Your task to perform on an android device: add a contact in the contacts app Image 0: 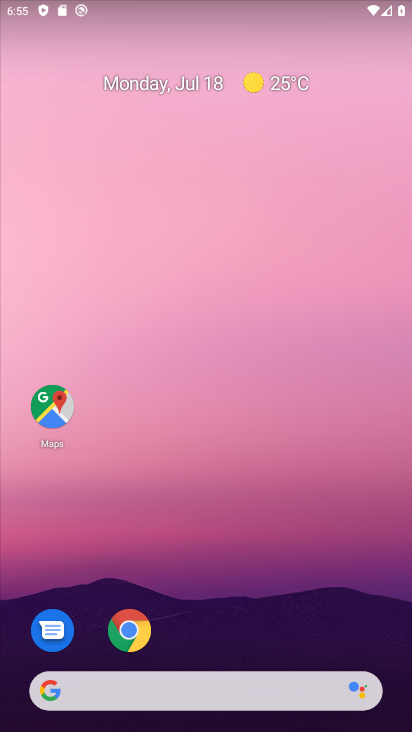
Step 0: drag from (240, 701) to (338, 222)
Your task to perform on an android device: add a contact in the contacts app Image 1: 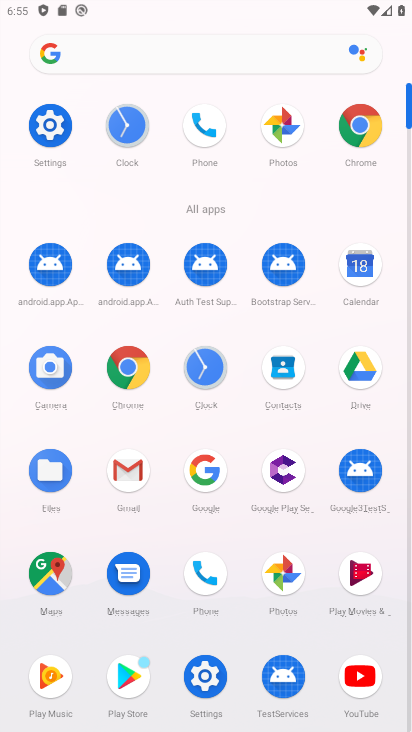
Step 1: click (200, 137)
Your task to perform on an android device: add a contact in the contacts app Image 2: 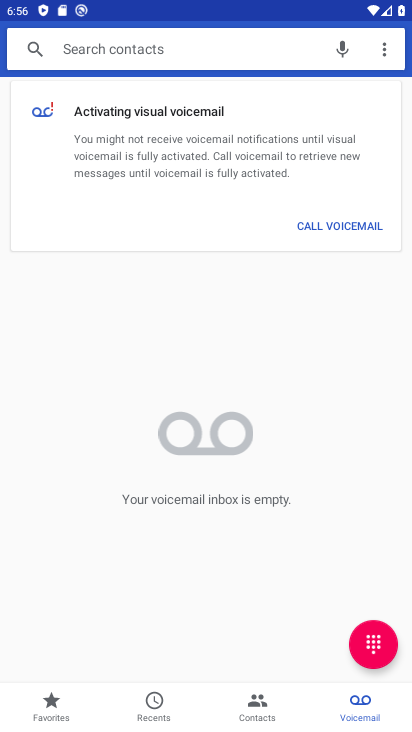
Step 2: click (255, 703)
Your task to perform on an android device: add a contact in the contacts app Image 3: 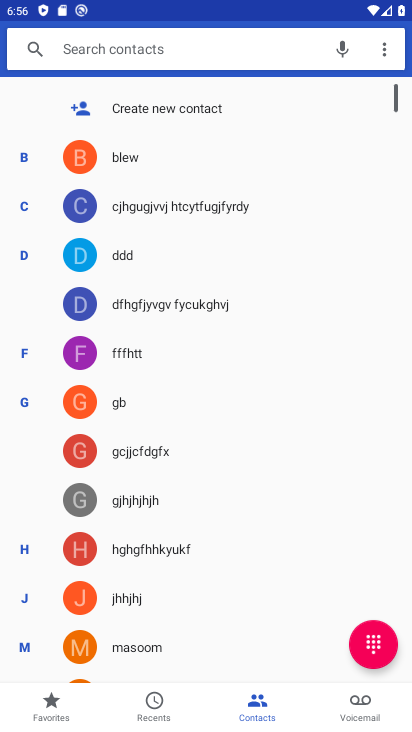
Step 3: click (163, 99)
Your task to perform on an android device: add a contact in the contacts app Image 4: 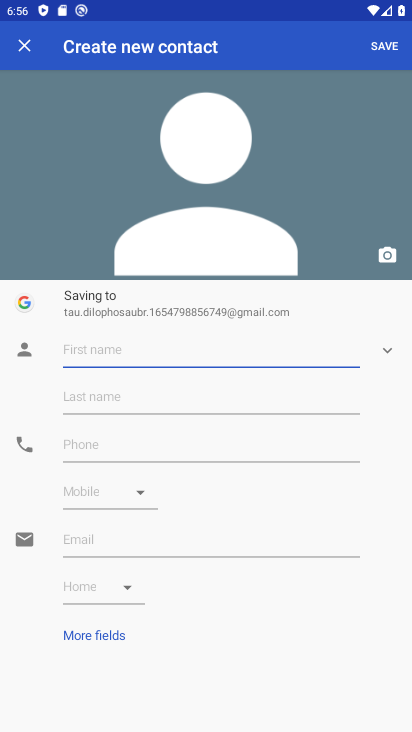
Step 4: click (108, 356)
Your task to perform on an android device: add a contact in the contacts app Image 5: 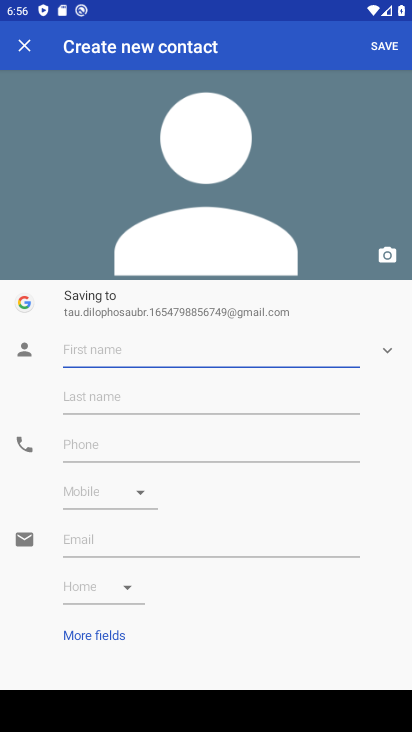
Step 5: drag from (381, 717) to (370, 654)
Your task to perform on an android device: add a contact in the contacts app Image 6: 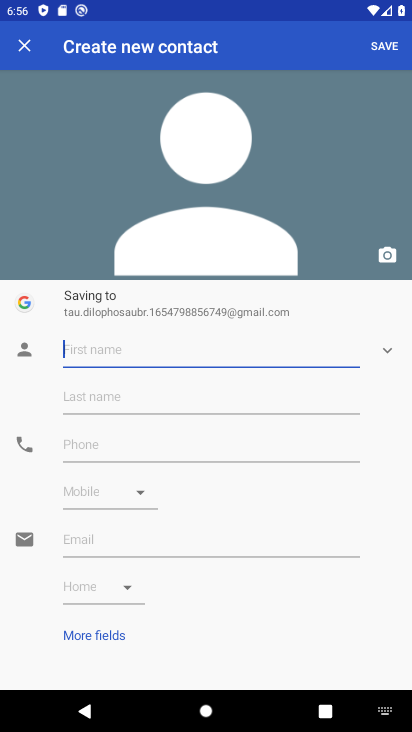
Step 6: click (388, 715)
Your task to perform on an android device: add a contact in the contacts app Image 7: 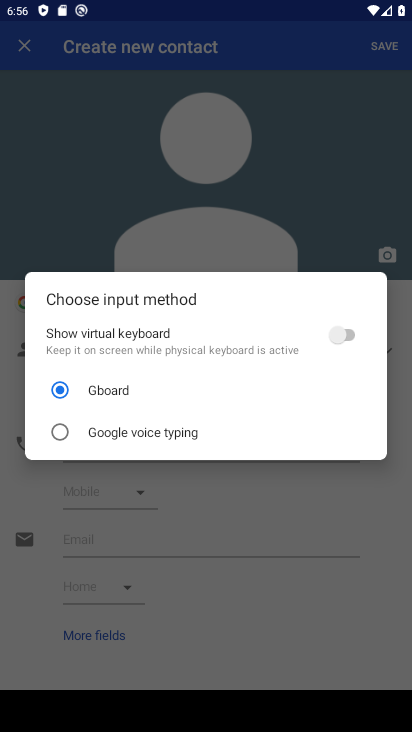
Step 7: click (351, 331)
Your task to perform on an android device: add a contact in the contacts app Image 8: 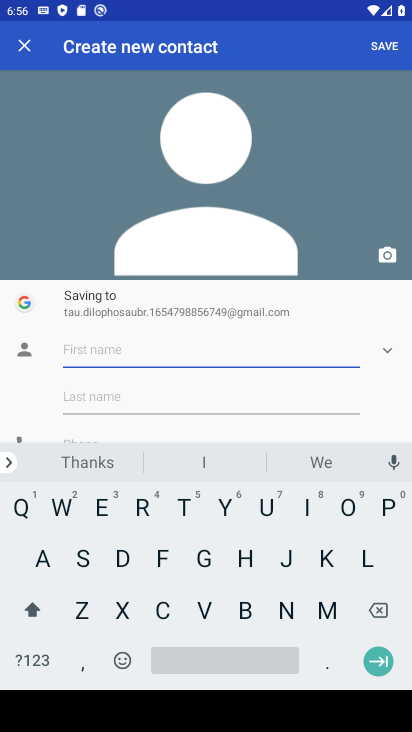
Step 8: click (197, 548)
Your task to perform on an android device: add a contact in the contacts app Image 9: 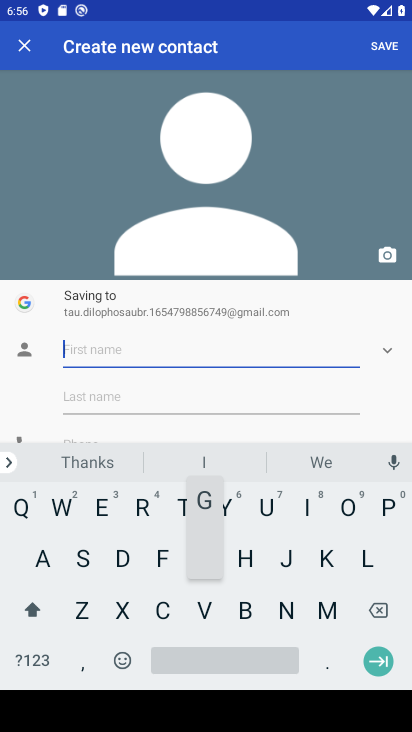
Step 9: click (135, 572)
Your task to perform on an android device: add a contact in the contacts app Image 10: 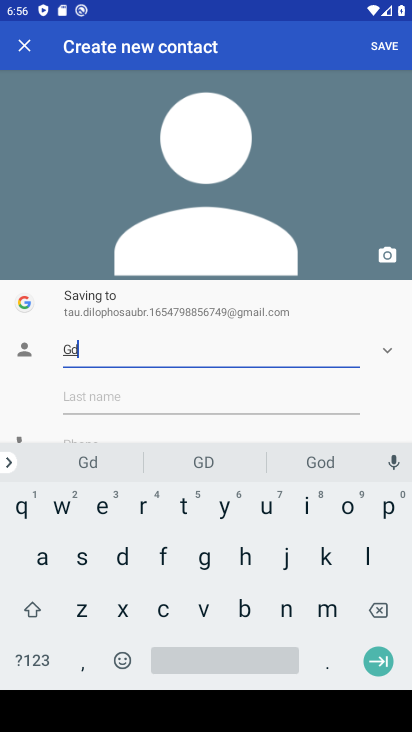
Step 10: click (116, 559)
Your task to perform on an android device: add a contact in the contacts app Image 11: 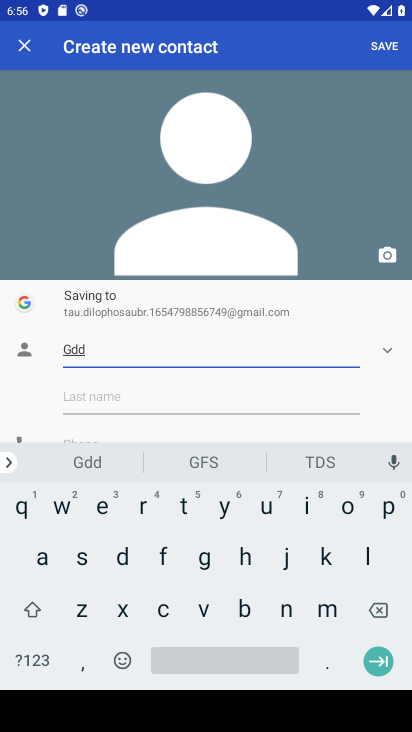
Step 11: click (116, 421)
Your task to perform on an android device: add a contact in the contacts app Image 12: 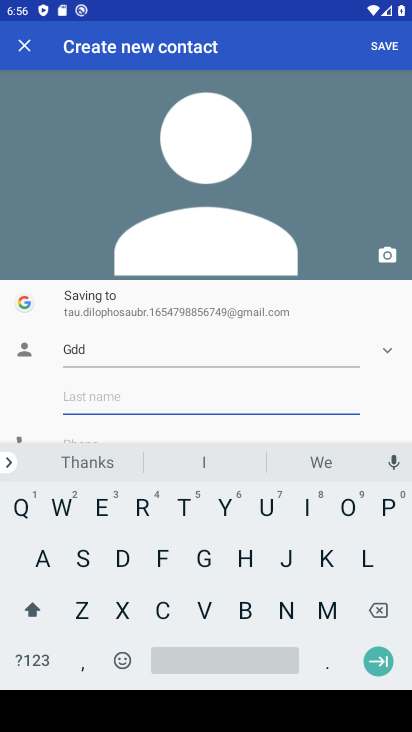
Step 12: click (90, 434)
Your task to perform on an android device: add a contact in the contacts app Image 13: 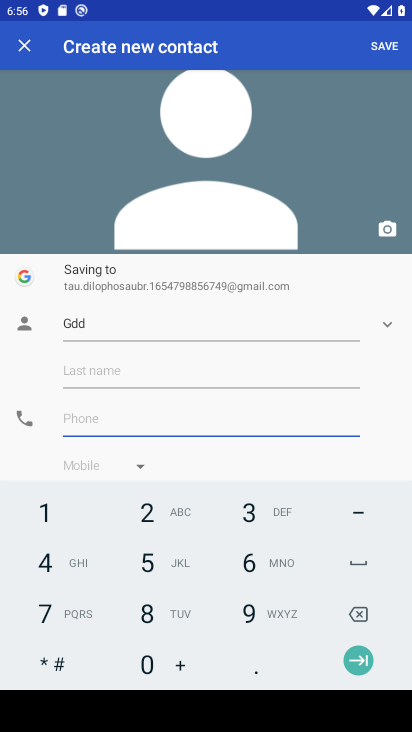
Step 13: click (250, 606)
Your task to perform on an android device: add a contact in the contacts app Image 14: 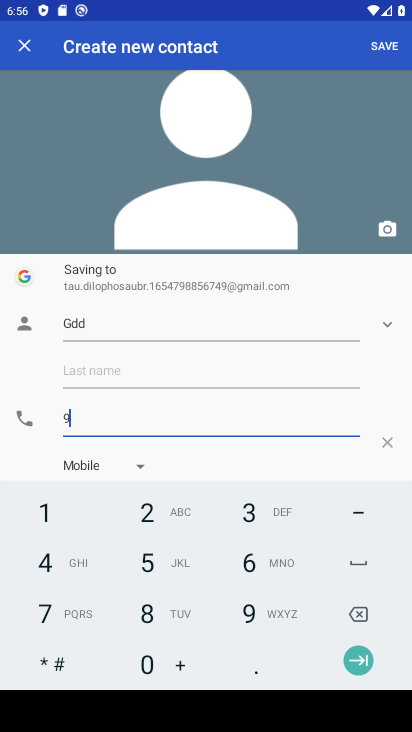
Step 14: click (152, 604)
Your task to perform on an android device: add a contact in the contacts app Image 15: 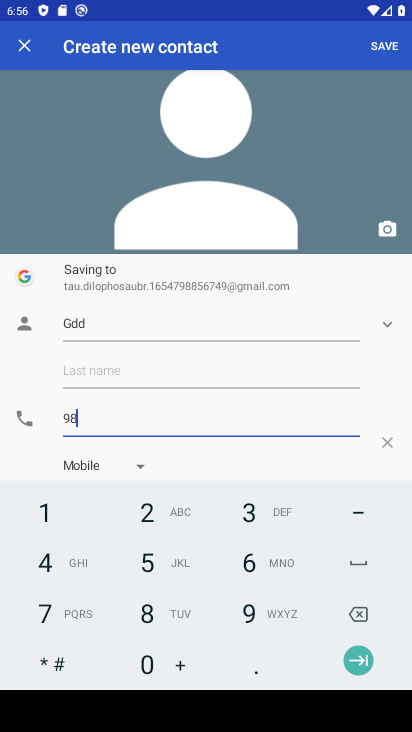
Step 15: click (128, 557)
Your task to perform on an android device: add a contact in the contacts app Image 16: 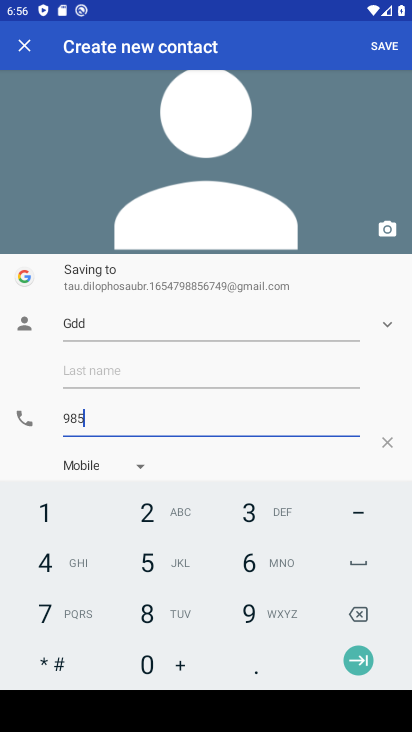
Step 16: click (55, 512)
Your task to perform on an android device: add a contact in the contacts app Image 17: 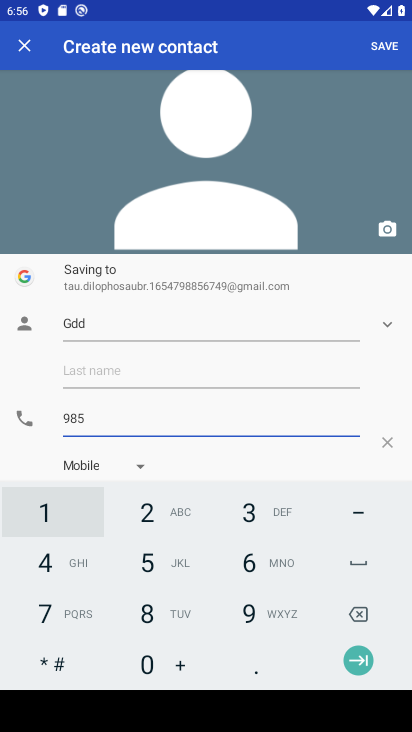
Step 17: click (47, 561)
Your task to perform on an android device: add a contact in the contacts app Image 18: 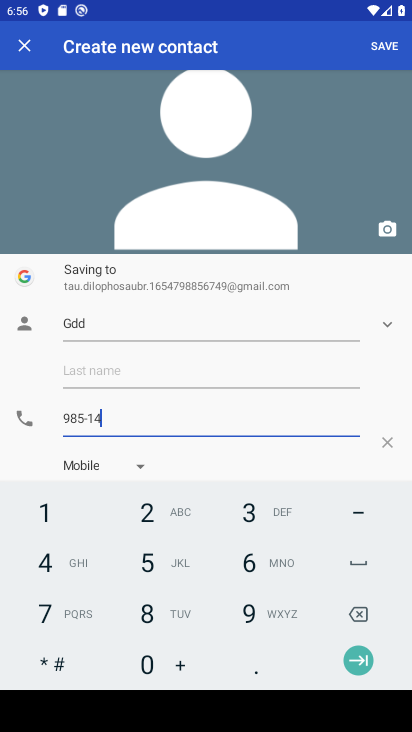
Step 18: click (139, 500)
Your task to perform on an android device: add a contact in the contacts app Image 19: 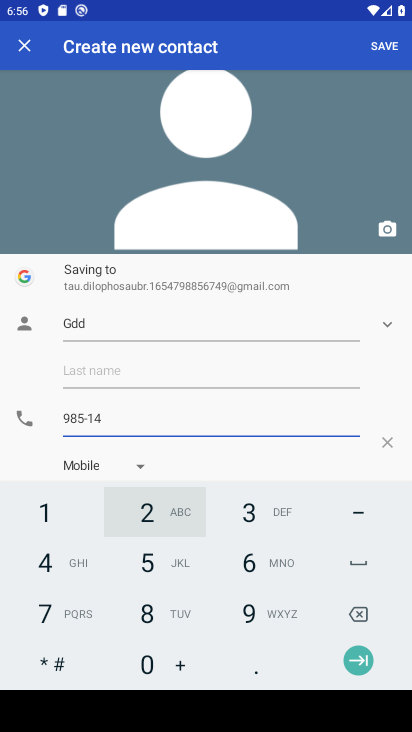
Step 19: click (158, 533)
Your task to perform on an android device: add a contact in the contacts app Image 20: 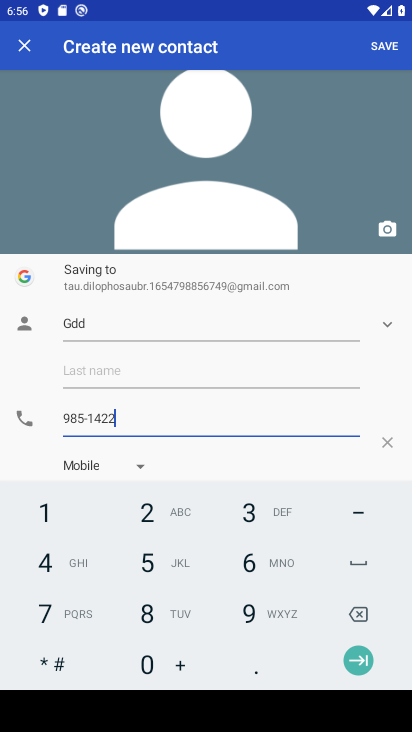
Step 20: click (165, 549)
Your task to perform on an android device: add a contact in the contacts app Image 21: 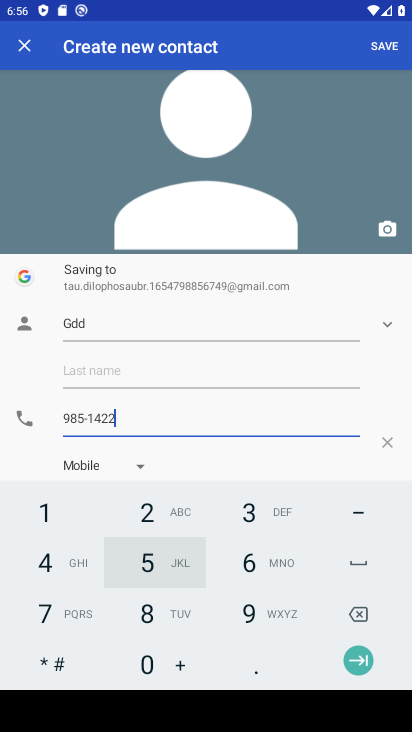
Step 21: click (159, 598)
Your task to perform on an android device: add a contact in the contacts app Image 22: 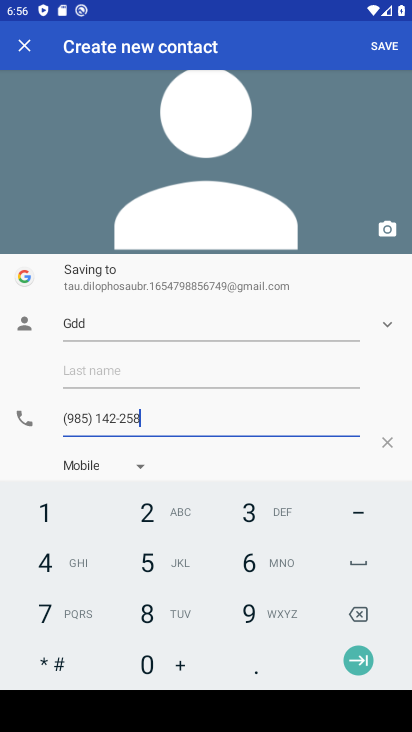
Step 22: click (150, 621)
Your task to perform on an android device: add a contact in the contacts app Image 23: 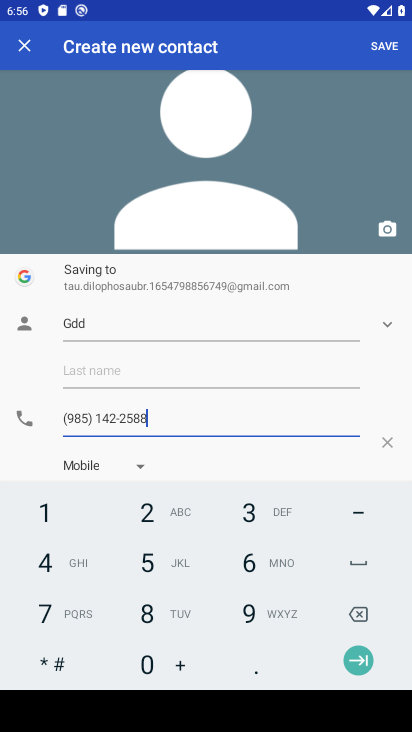
Step 23: click (396, 62)
Your task to perform on an android device: add a contact in the contacts app Image 24: 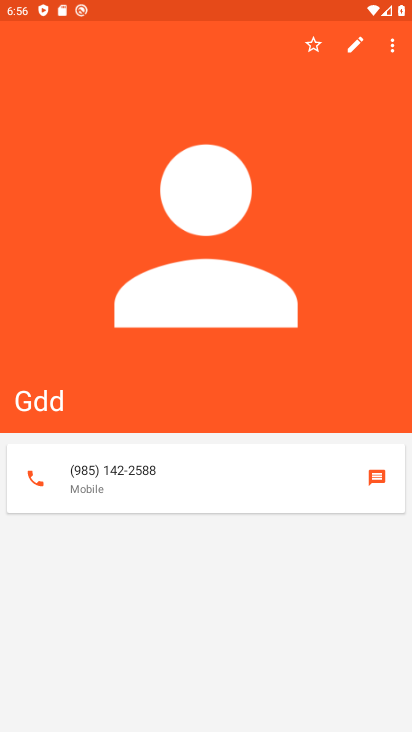
Step 24: task complete